Your task to perform on an android device: delete browsing data in the chrome app Image 0: 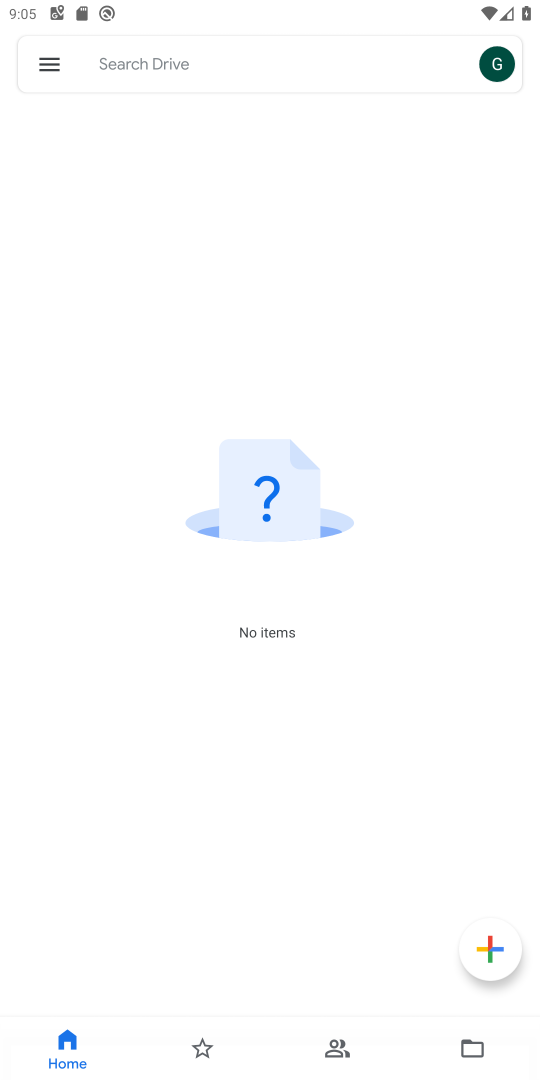
Step 0: press home button
Your task to perform on an android device: delete browsing data in the chrome app Image 1: 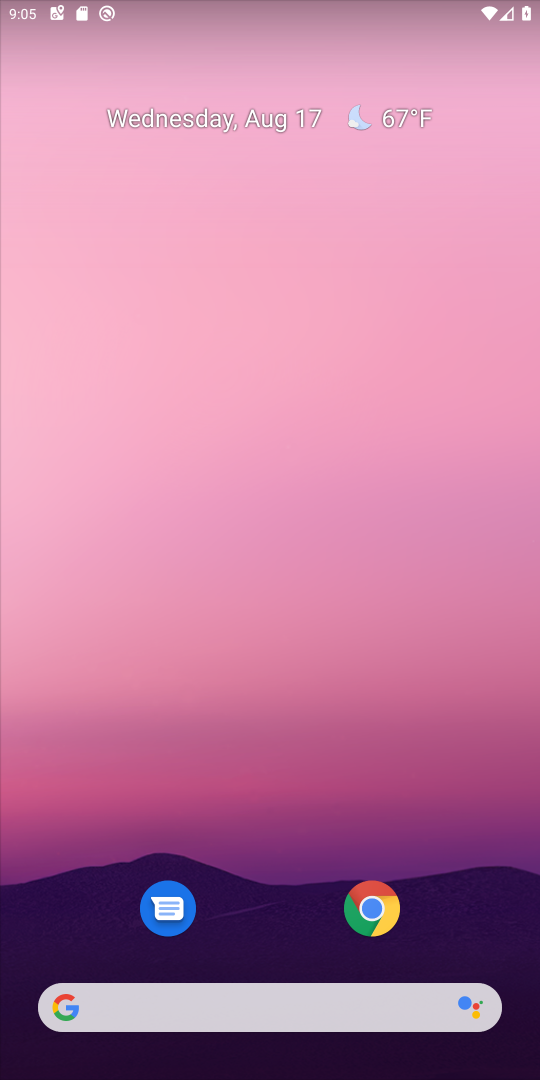
Step 1: drag from (279, 914) to (302, 59)
Your task to perform on an android device: delete browsing data in the chrome app Image 2: 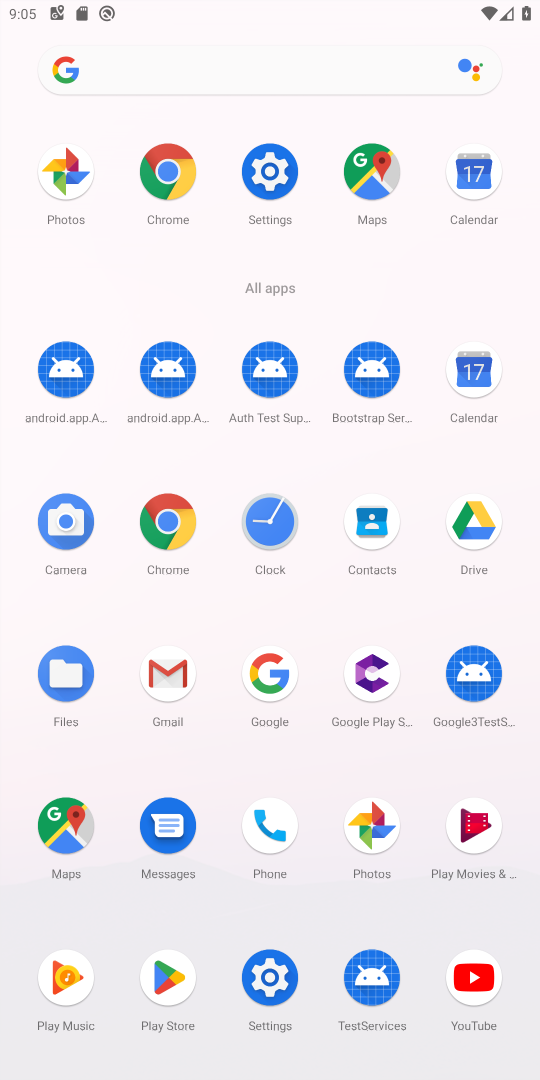
Step 2: click (168, 528)
Your task to perform on an android device: delete browsing data in the chrome app Image 3: 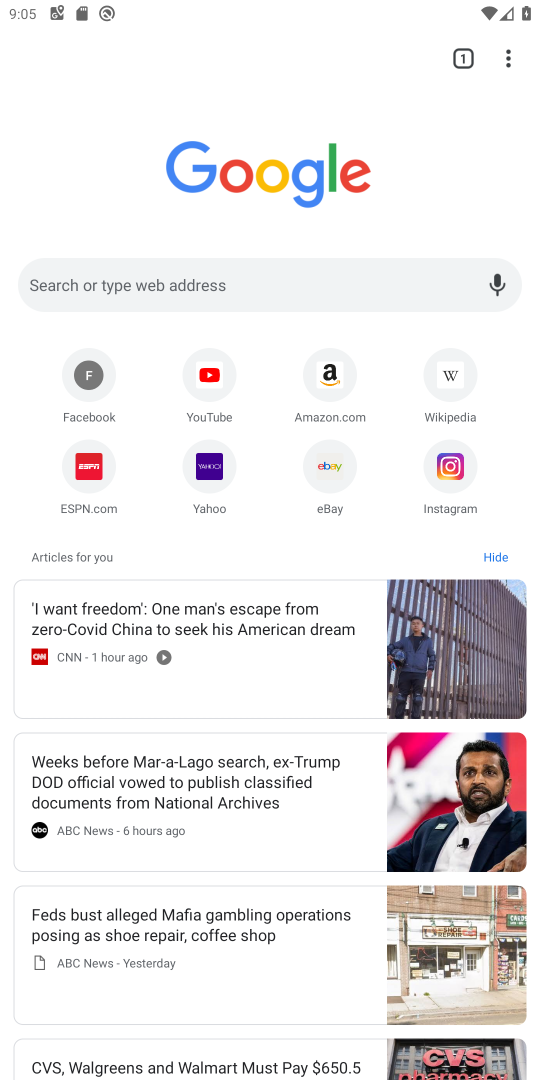
Step 3: drag from (505, 55) to (357, 493)
Your task to perform on an android device: delete browsing data in the chrome app Image 4: 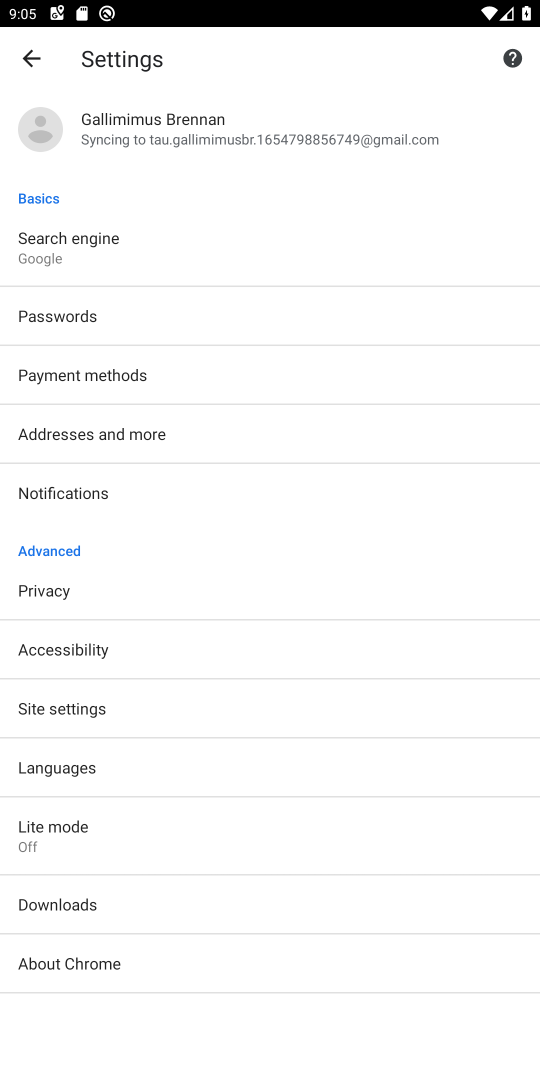
Step 4: click (55, 590)
Your task to perform on an android device: delete browsing data in the chrome app Image 5: 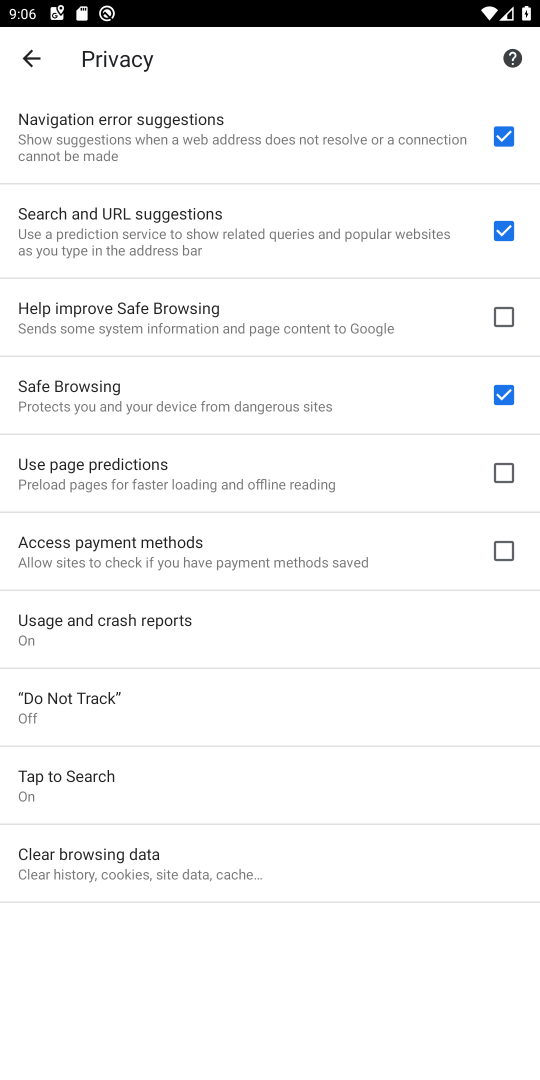
Step 5: click (133, 859)
Your task to perform on an android device: delete browsing data in the chrome app Image 6: 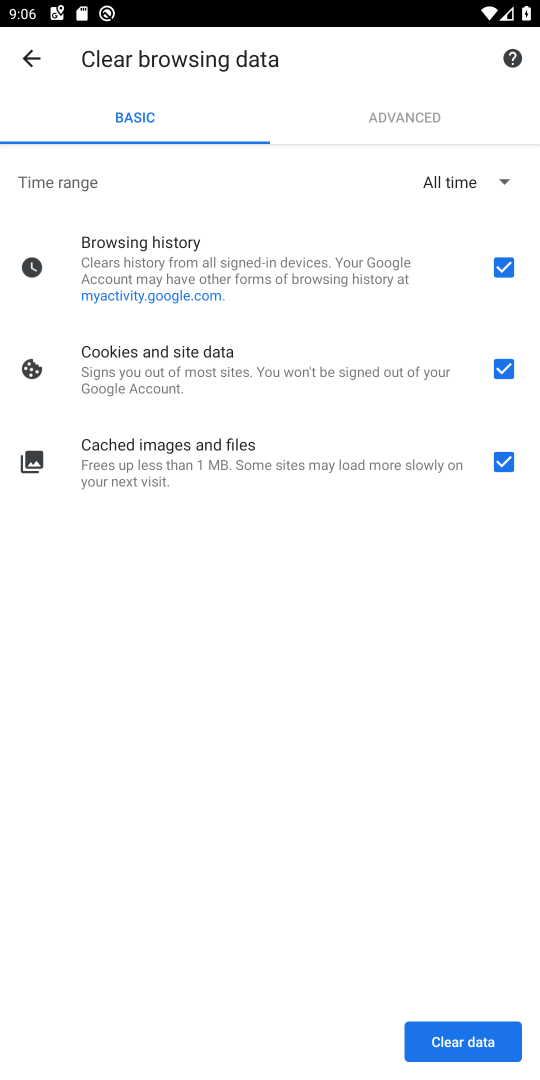
Step 6: click (467, 1034)
Your task to perform on an android device: delete browsing data in the chrome app Image 7: 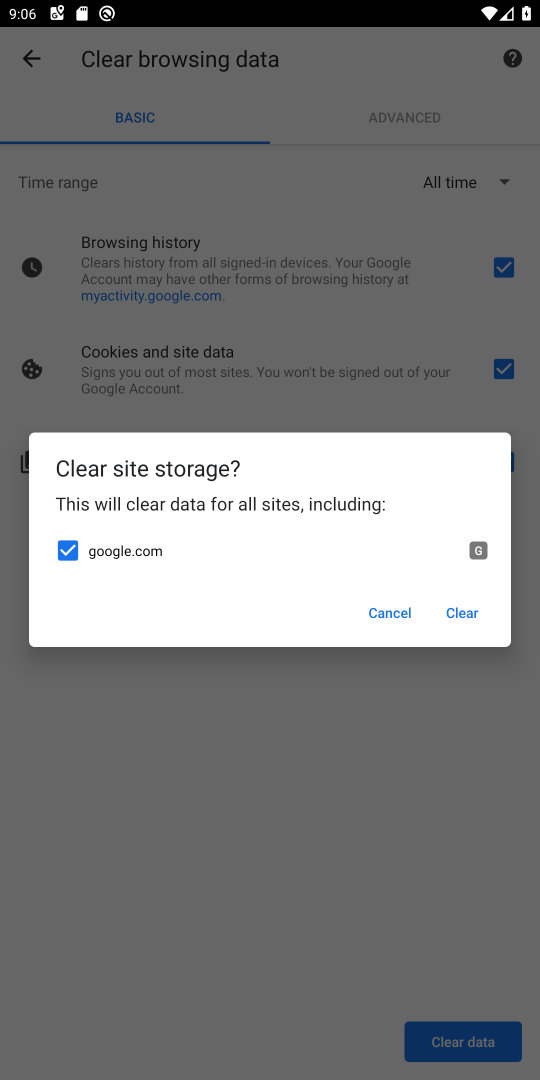
Step 7: click (464, 617)
Your task to perform on an android device: delete browsing data in the chrome app Image 8: 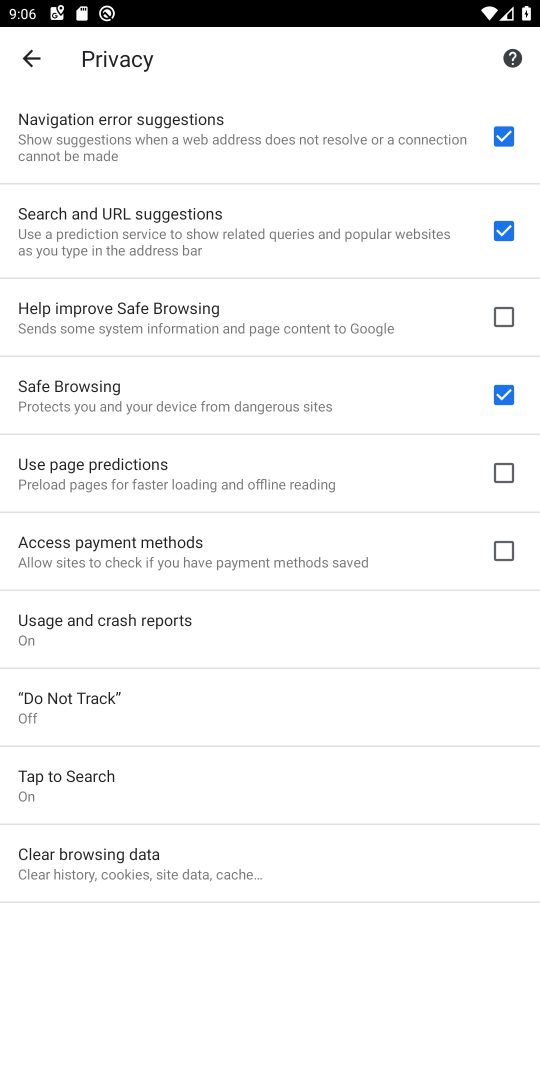
Step 8: task complete